Your task to perform on an android device: Do I have any events this weekend? Image 0: 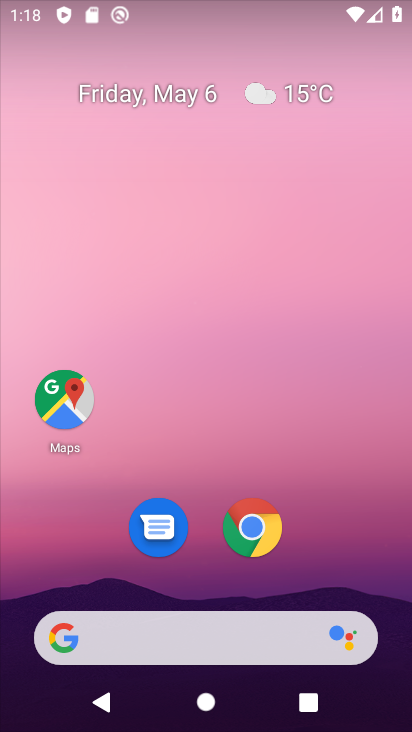
Step 0: click (210, 96)
Your task to perform on an android device: Do I have any events this weekend? Image 1: 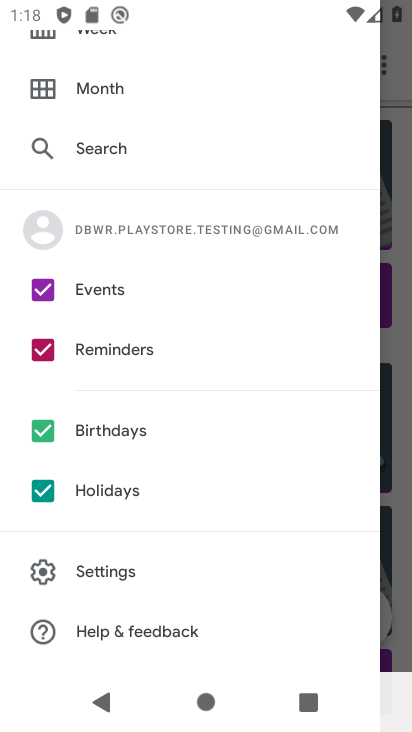
Step 1: click (395, 109)
Your task to perform on an android device: Do I have any events this weekend? Image 2: 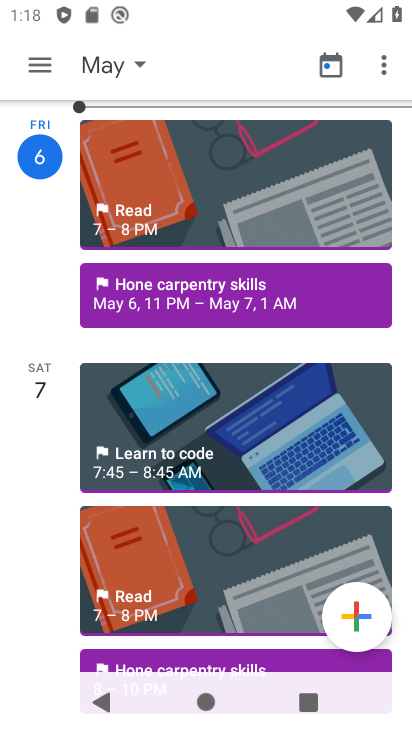
Step 2: click (34, 66)
Your task to perform on an android device: Do I have any events this weekend? Image 3: 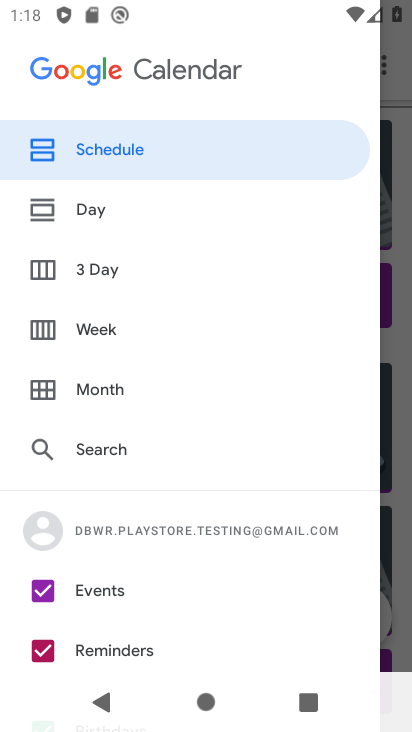
Step 3: click (37, 651)
Your task to perform on an android device: Do I have any events this weekend? Image 4: 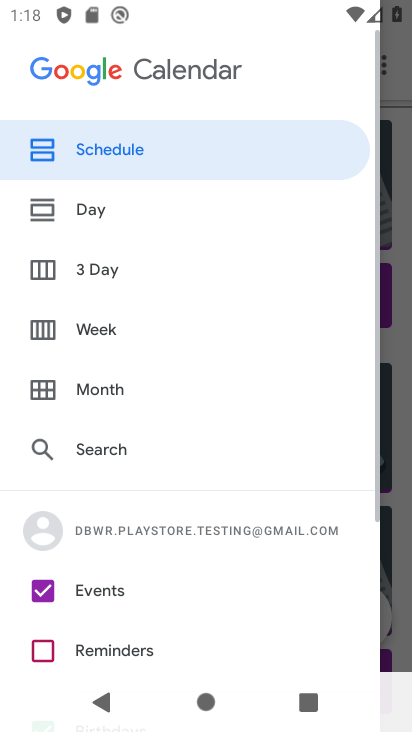
Step 4: drag from (106, 607) to (228, 36)
Your task to perform on an android device: Do I have any events this weekend? Image 5: 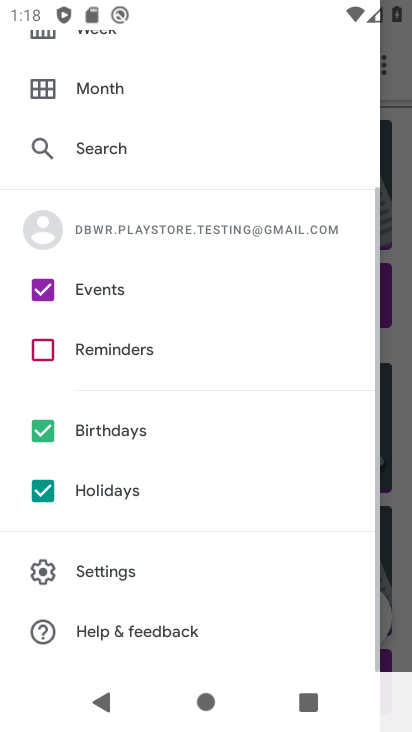
Step 5: click (46, 428)
Your task to perform on an android device: Do I have any events this weekend? Image 6: 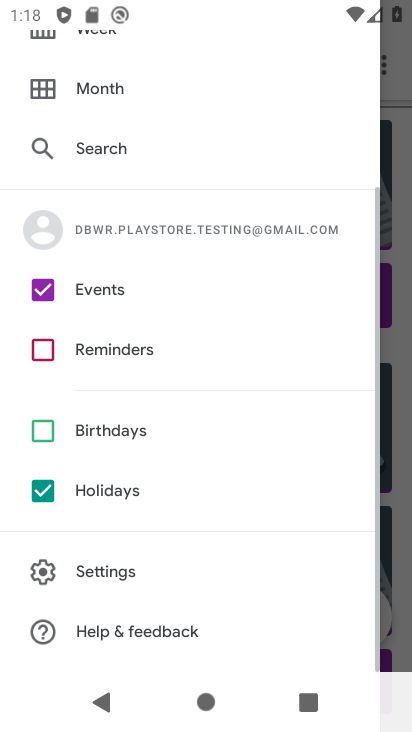
Step 6: click (50, 485)
Your task to perform on an android device: Do I have any events this weekend? Image 7: 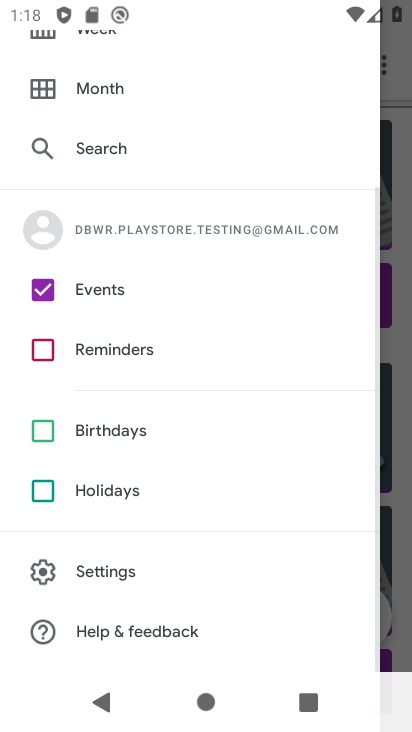
Step 7: click (385, 170)
Your task to perform on an android device: Do I have any events this weekend? Image 8: 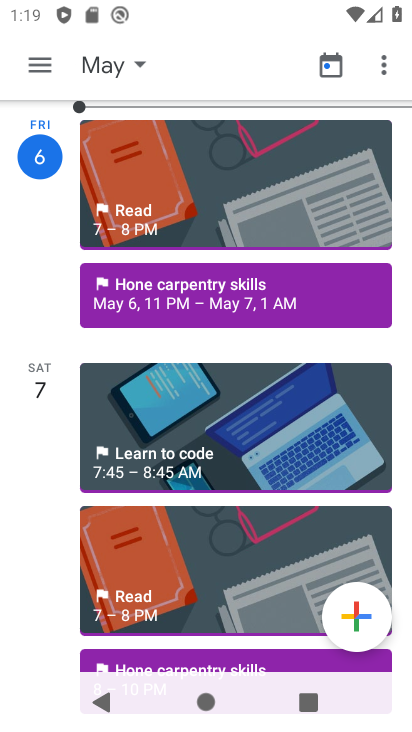
Step 8: task complete